Your task to perform on an android device: remove spam from my inbox in the gmail app Image 0: 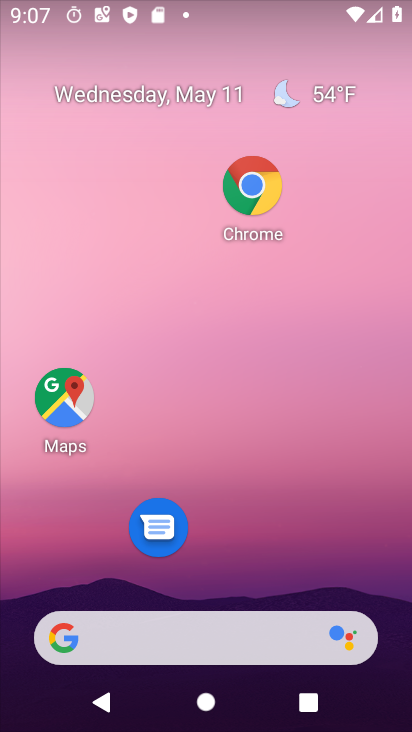
Step 0: drag from (244, 552) to (249, 84)
Your task to perform on an android device: remove spam from my inbox in the gmail app Image 1: 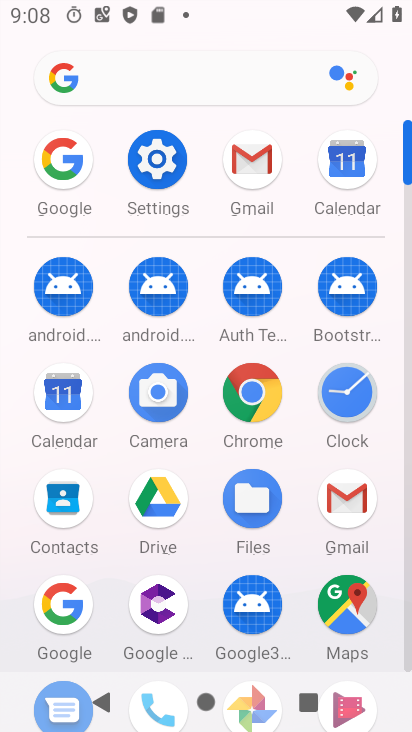
Step 1: click (343, 504)
Your task to perform on an android device: remove spam from my inbox in the gmail app Image 2: 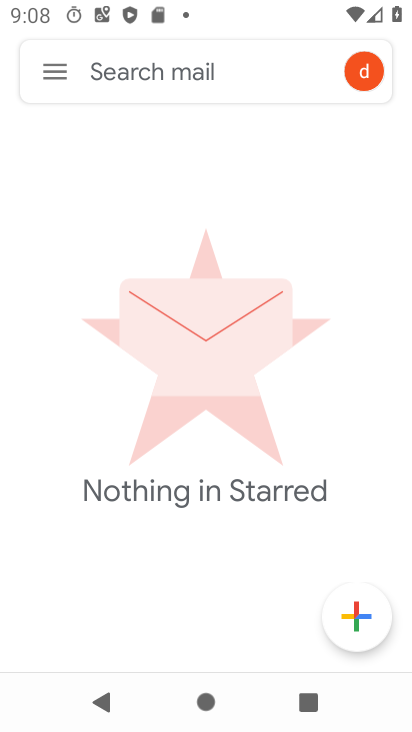
Step 2: click (53, 73)
Your task to perform on an android device: remove spam from my inbox in the gmail app Image 3: 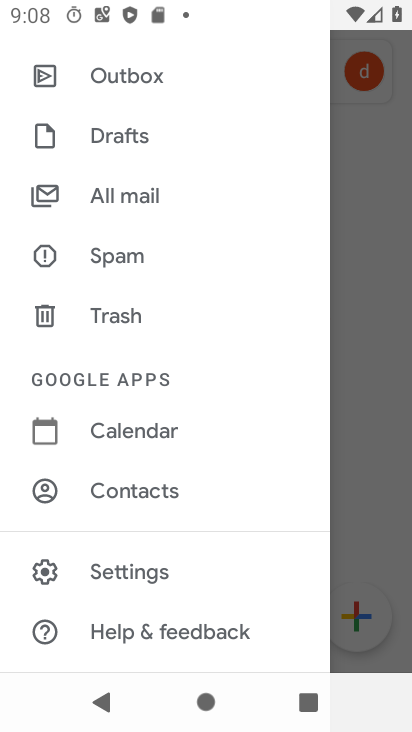
Step 3: click (116, 247)
Your task to perform on an android device: remove spam from my inbox in the gmail app Image 4: 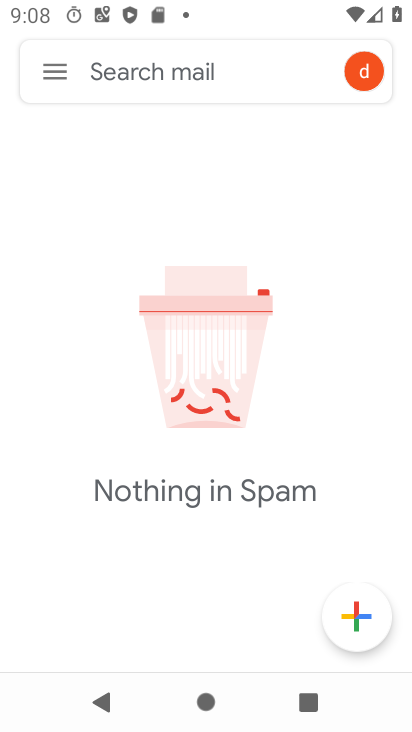
Step 4: task complete